Your task to perform on an android device: Open Youtube and go to "Your channel" Image 0: 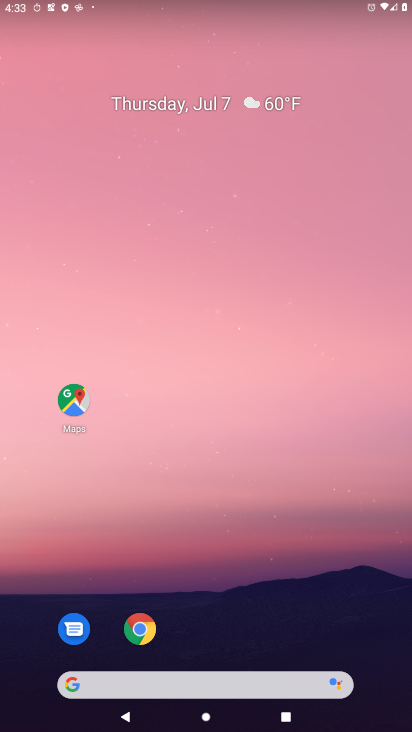
Step 0: drag from (196, 580) to (187, 184)
Your task to perform on an android device: Open Youtube and go to "Your channel" Image 1: 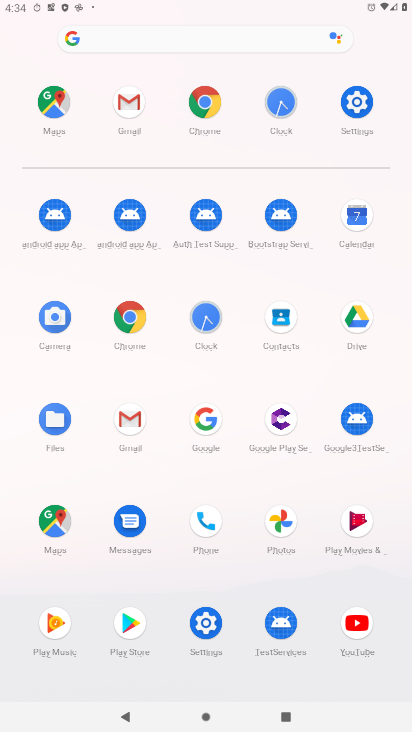
Step 1: click (359, 630)
Your task to perform on an android device: Open Youtube and go to "Your channel" Image 2: 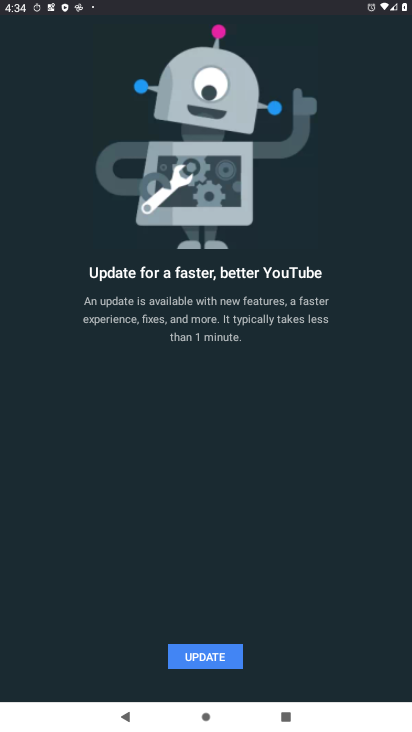
Step 2: click (219, 654)
Your task to perform on an android device: Open Youtube and go to "Your channel" Image 3: 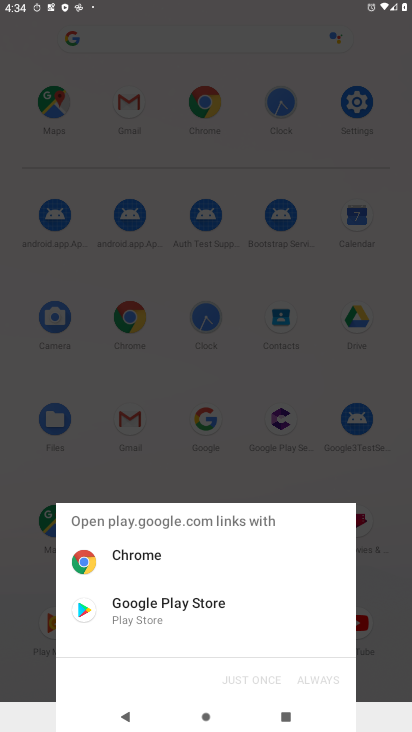
Step 3: click (175, 617)
Your task to perform on an android device: Open Youtube and go to "Your channel" Image 4: 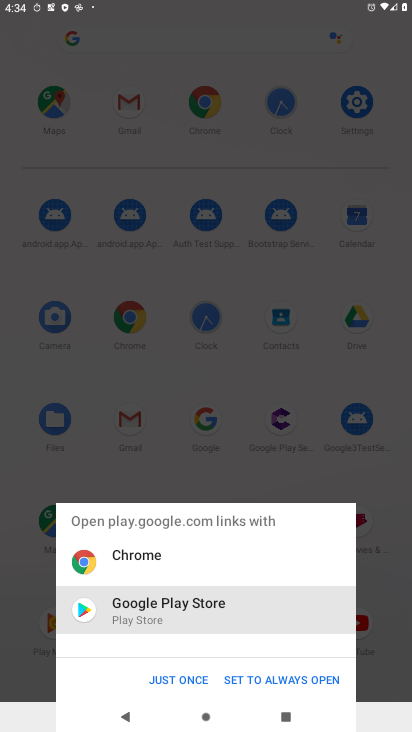
Step 4: click (292, 689)
Your task to perform on an android device: Open Youtube and go to "Your channel" Image 5: 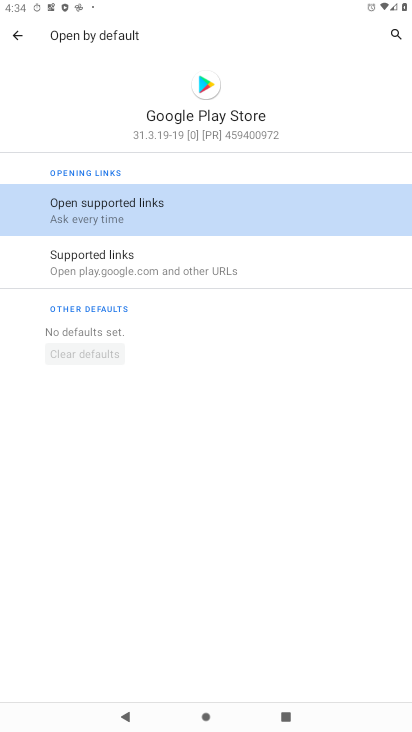
Step 5: click (85, 208)
Your task to perform on an android device: Open Youtube and go to "Your channel" Image 6: 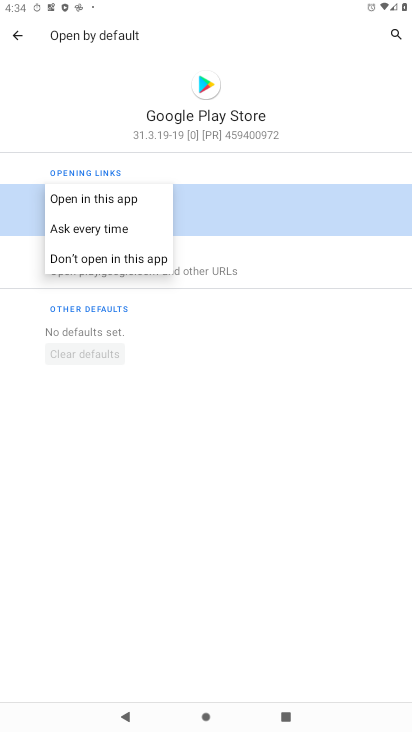
Step 6: click (106, 204)
Your task to perform on an android device: Open Youtube and go to "Your channel" Image 7: 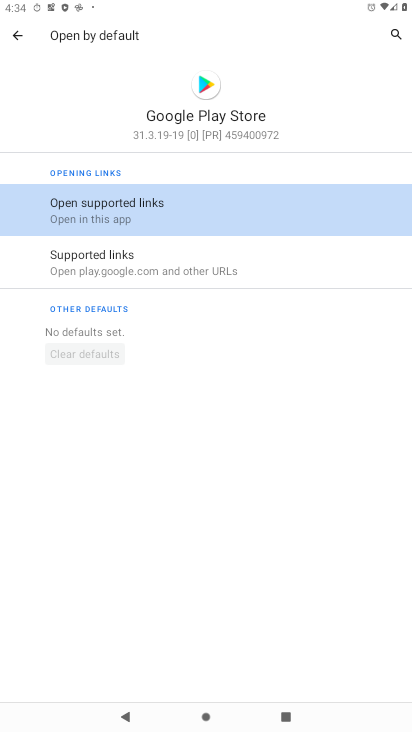
Step 7: click (21, 34)
Your task to perform on an android device: Open Youtube and go to "Your channel" Image 8: 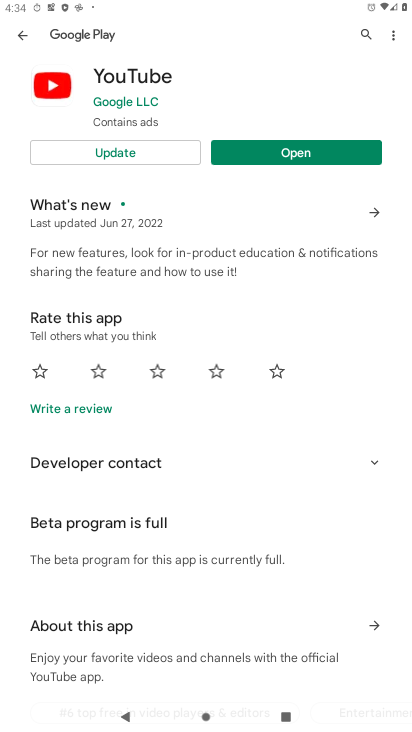
Step 8: click (109, 143)
Your task to perform on an android device: Open Youtube and go to "Your channel" Image 9: 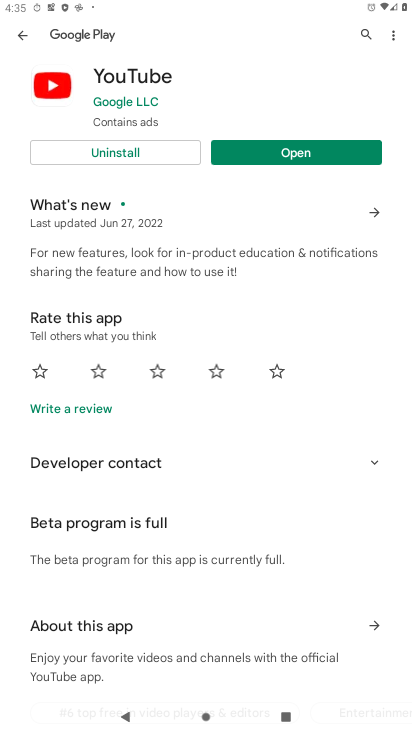
Step 9: click (266, 142)
Your task to perform on an android device: Open Youtube and go to "Your channel" Image 10: 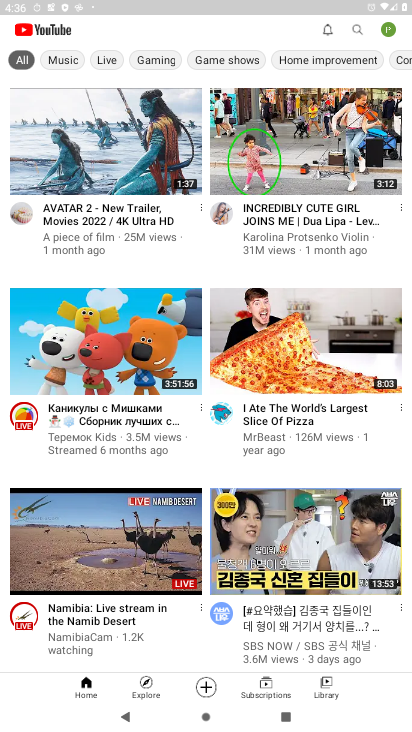
Step 10: task complete